Your task to perform on an android device: Open the map Image 0: 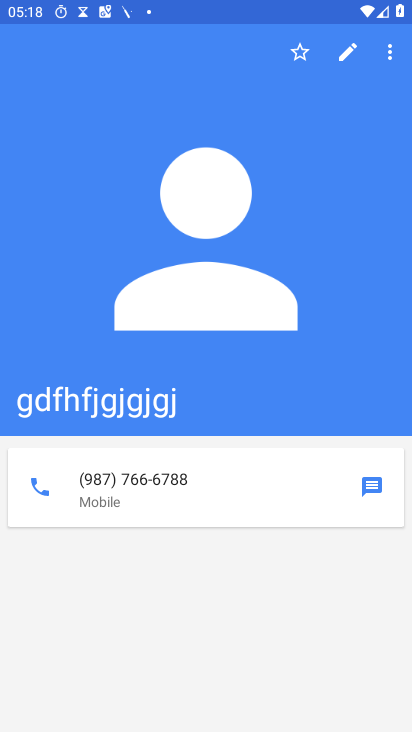
Step 0: press home button
Your task to perform on an android device: Open the map Image 1: 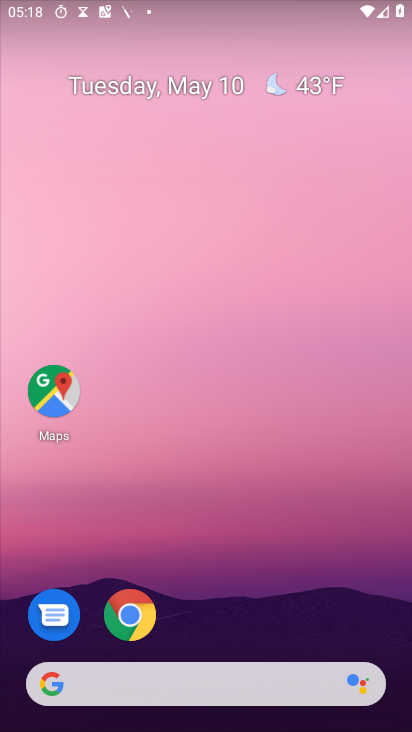
Step 1: drag from (297, 643) to (210, 33)
Your task to perform on an android device: Open the map Image 2: 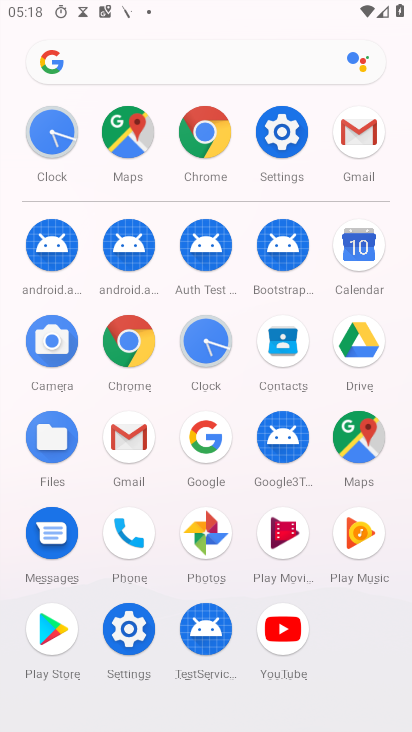
Step 2: click (358, 440)
Your task to perform on an android device: Open the map Image 3: 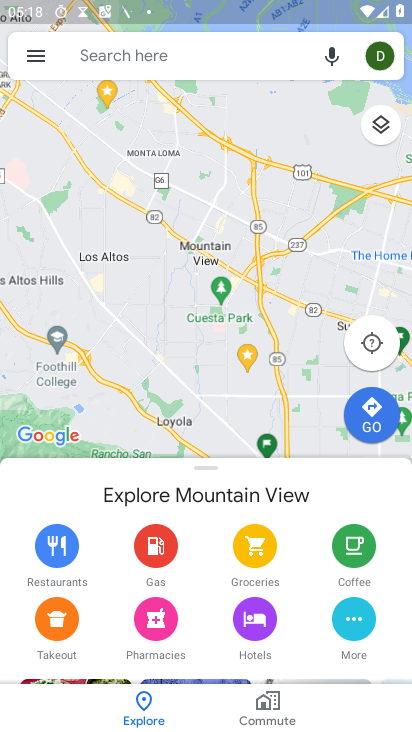
Step 3: task complete